Your task to perform on an android device: Search for vegetarian restaurants on Maps Image 0: 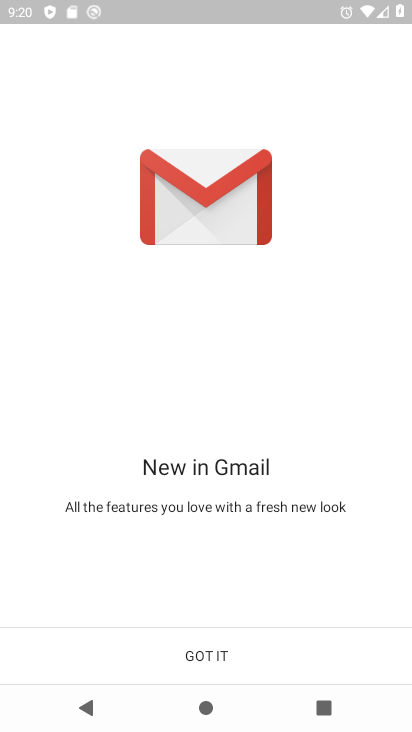
Step 0: press home button
Your task to perform on an android device: Search for vegetarian restaurants on Maps Image 1: 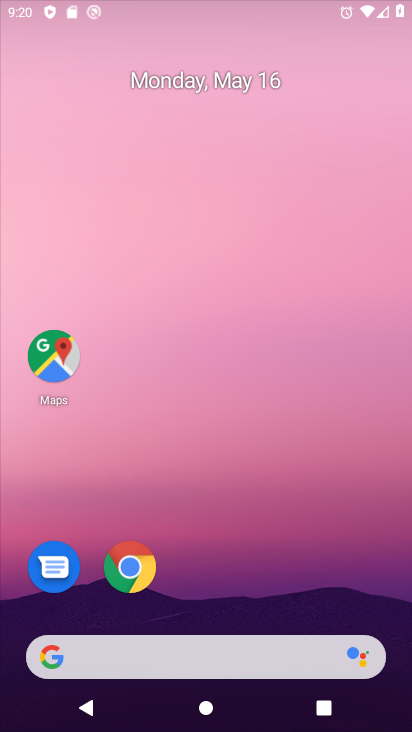
Step 1: drag from (257, 614) to (295, 251)
Your task to perform on an android device: Search for vegetarian restaurants on Maps Image 2: 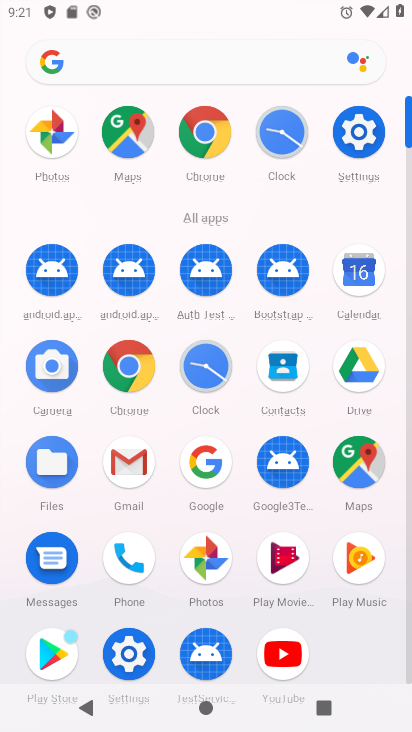
Step 2: click (356, 452)
Your task to perform on an android device: Search for vegetarian restaurants on Maps Image 3: 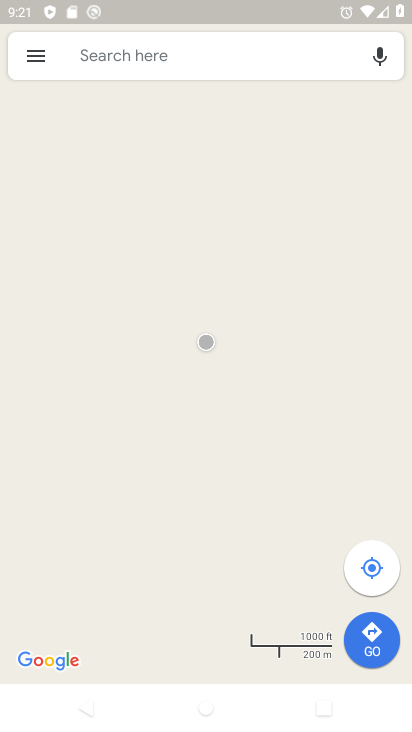
Step 3: click (157, 52)
Your task to perform on an android device: Search for vegetarian restaurants on Maps Image 4: 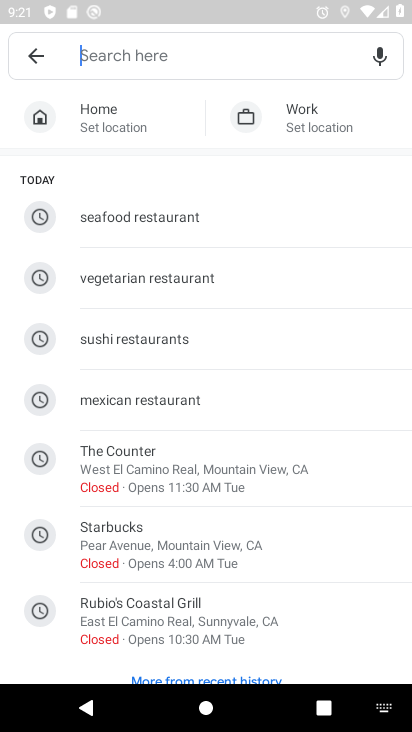
Step 4: click (176, 276)
Your task to perform on an android device: Search for vegetarian restaurants on Maps Image 5: 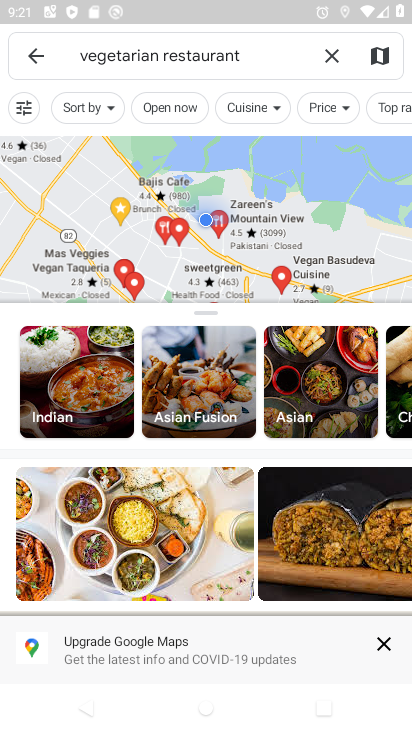
Step 5: task complete